Your task to perform on an android device: Turn off the flashlight Image 0: 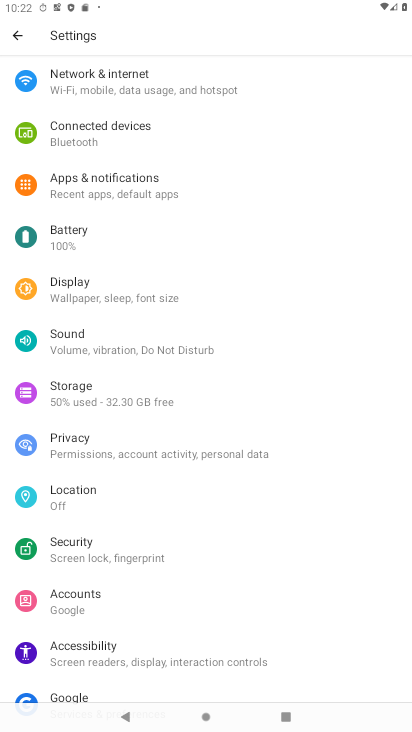
Step 0: press home button
Your task to perform on an android device: Turn off the flashlight Image 1: 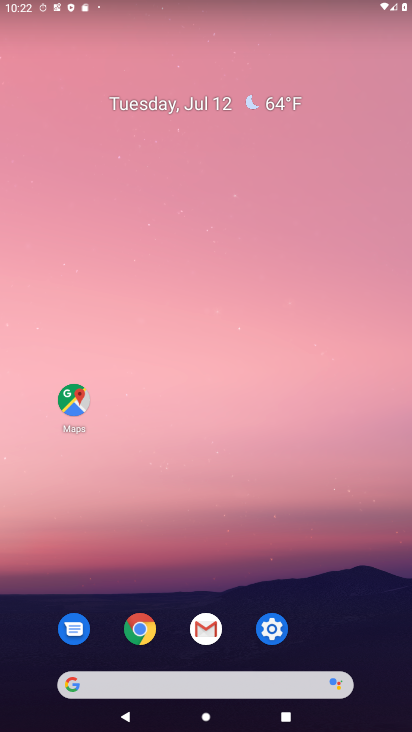
Step 1: click (265, 621)
Your task to perform on an android device: Turn off the flashlight Image 2: 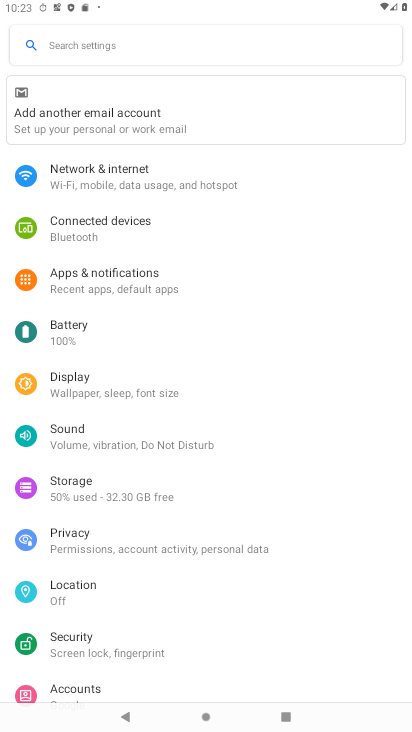
Step 2: click (87, 53)
Your task to perform on an android device: Turn off the flashlight Image 3: 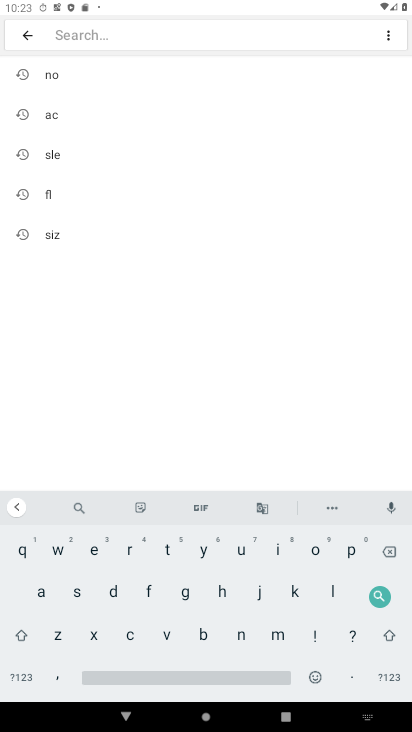
Step 3: click (147, 588)
Your task to perform on an android device: Turn off the flashlight Image 4: 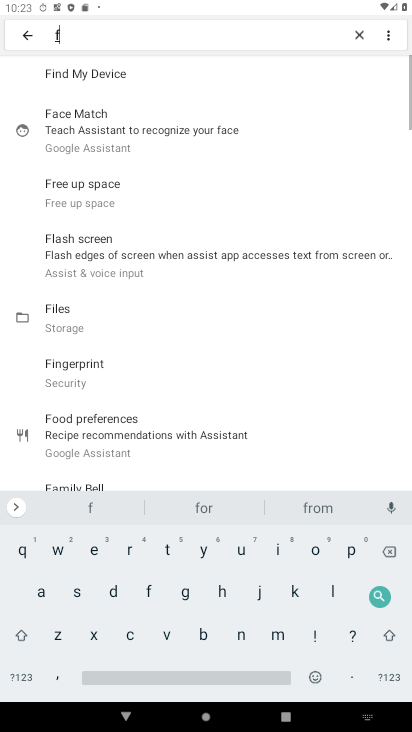
Step 4: click (336, 593)
Your task to perform on an android device: Turn off the flashlight Image 5: 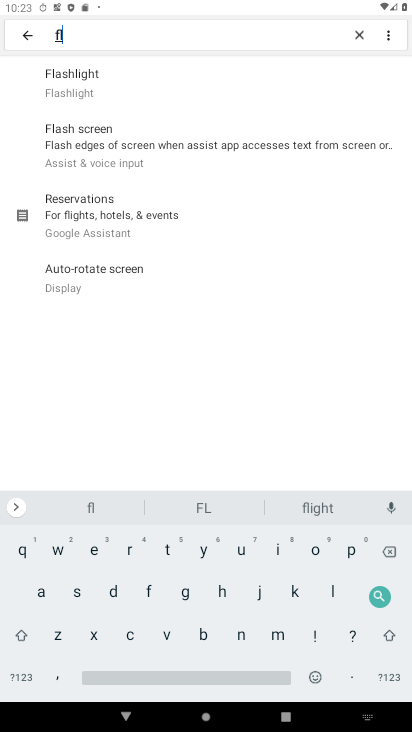
Step 5: click (110, 90)
Your task to perform on an android device: Turn off the flashlight Image 6: 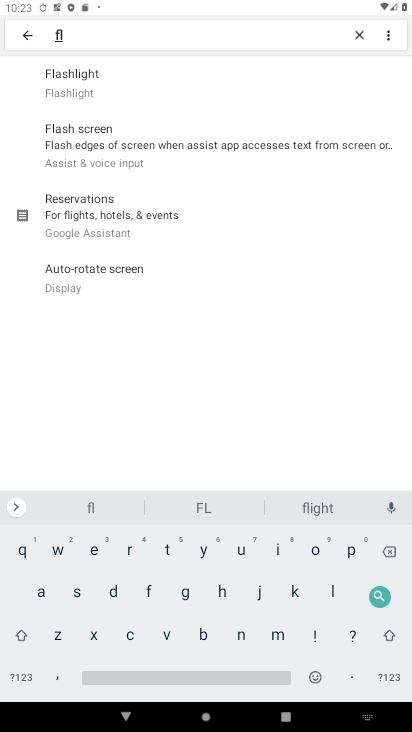
Step 6: click (153, 75)
Your task to perform on an android device: Turn off the flashlight Image 7: 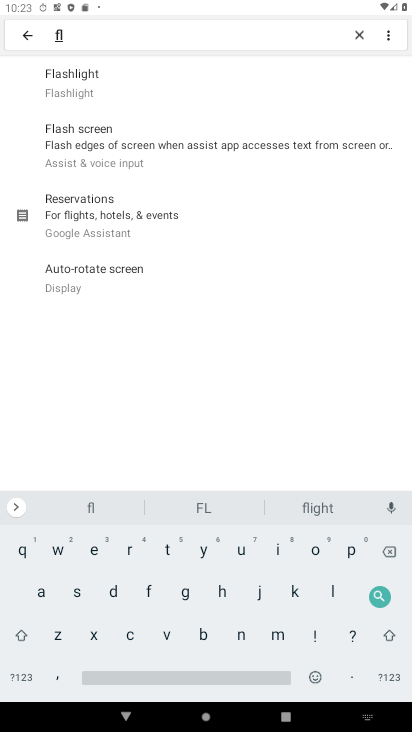
Step 7: task complete